Your task to perform on an android device: Turn on the flashlight Image 0: 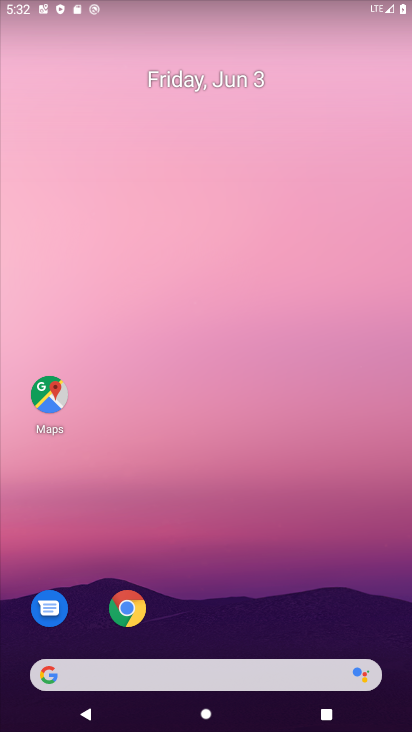
Step 0: drag from (250, 598) to (355, 108)
Your task to perform on an android device: Turn on the flashlight Image 1: 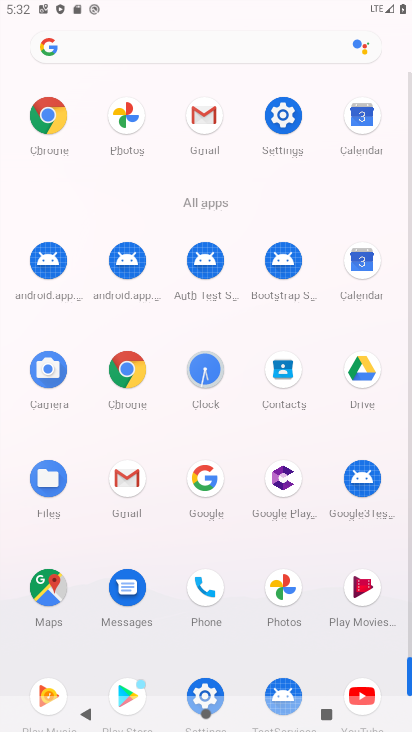
Step 1: click (283, 110)
Your task to perform on an android device: Turn on the flashlight Image 2: 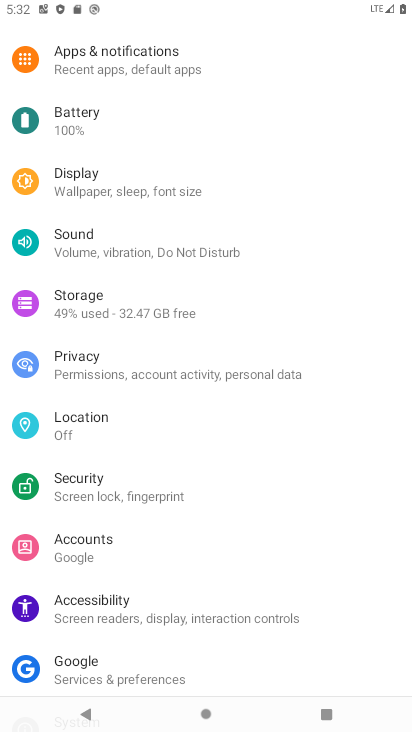
Step 2: click (100, 199)
Your task to perform on an android device: Turn on the flashlight Image 3: 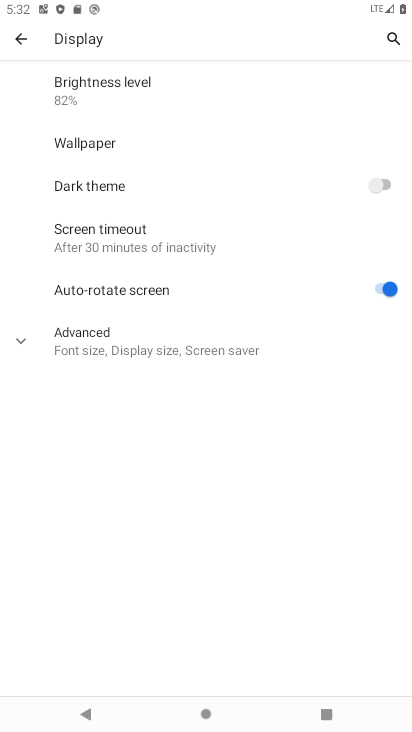
Step 3: click (128, 372)
Your task to perform on an android device: Turn on the flashlight Image 4: 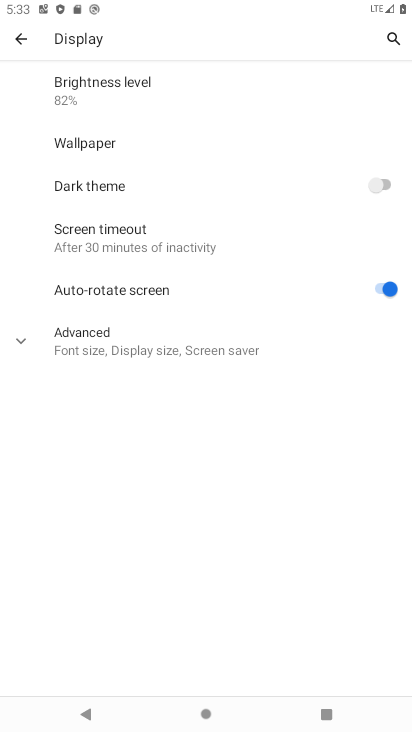
Step 4: click (147, 338)
Your task to perform on an android device: Turn on the flashlight Image 5: 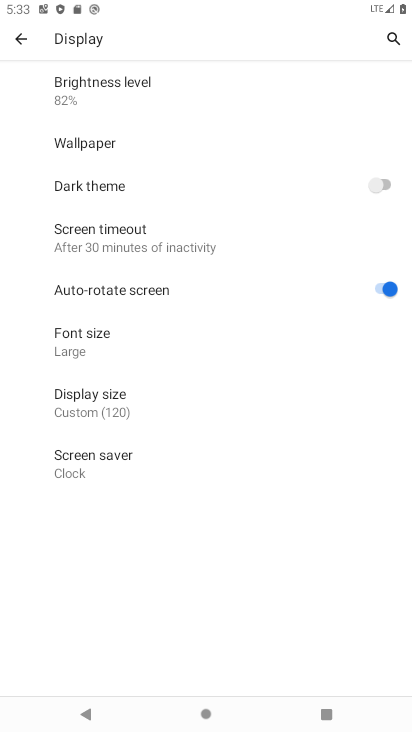
Step 5: press home button
Your task to perform on an android device: Turn on the flashlight Image 6: 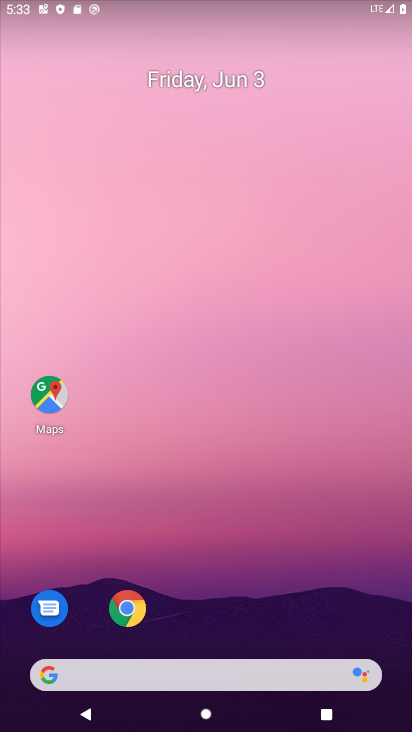
Step 6: drag from (257, 588) to (180, 67)
Your task to perform on an android device: Turn on the flashlight Image 7: 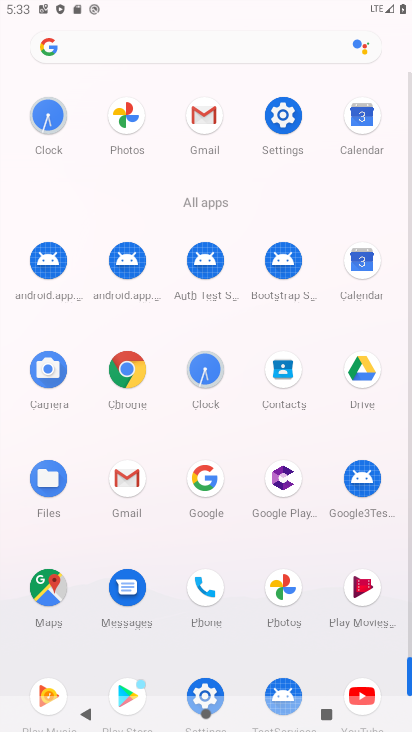
Step 7: click (302, 115)
Your task to perform on an android device: Turn on the flashlight Image 8: 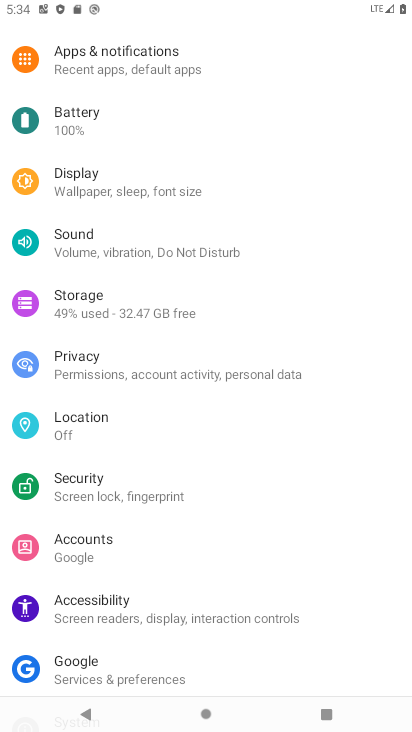
Step 8: click (152, 182)
Your task to perform on an android device: Turn on the flashlight Image 9: 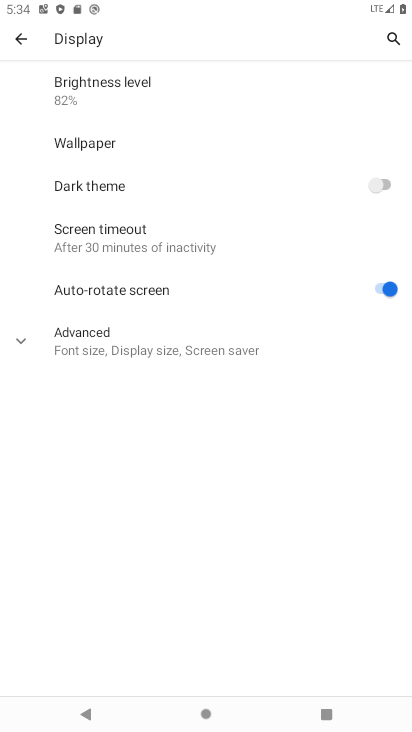
Step 9: click (168, 337)
Your task to perform on an android device: Turn on the flashlight Image 10: 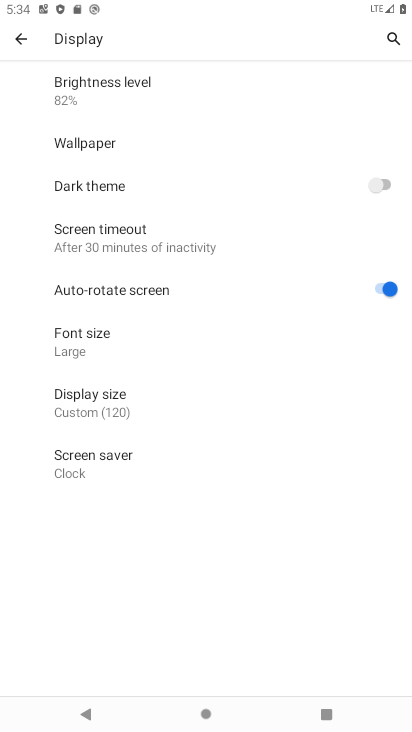
Step 10: task complete